Your task to perform on an android device: Open calendar and show me the third week of next month Image 0: 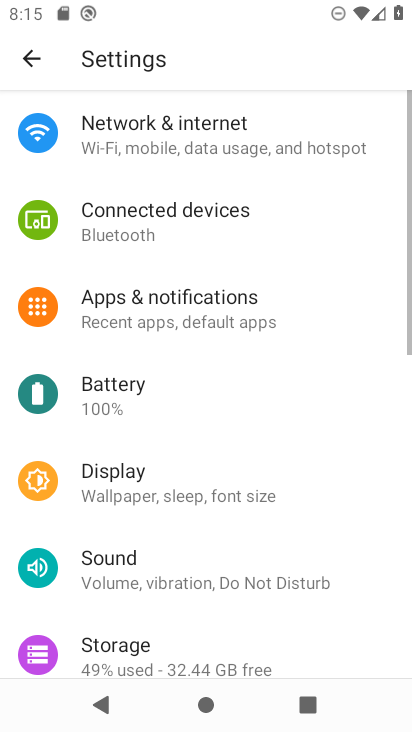
Step 0: press home button
Your task to perform on an android device: Open calendar and show me the third week of next month Image 1: 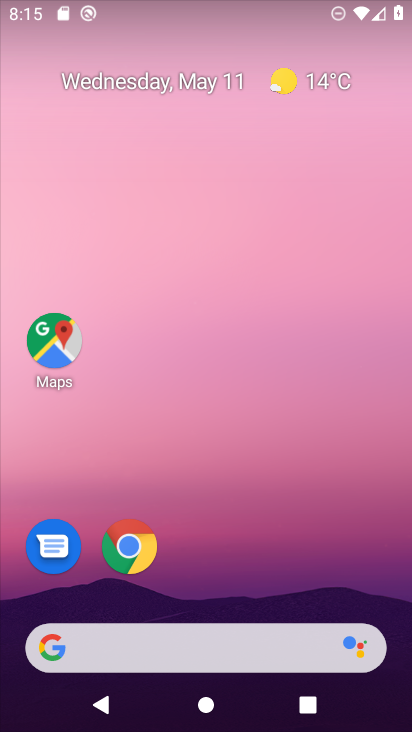
Step 1: drag from (238, 652) to (233, 140)
Your task to perform on an android device: Open calendar and show me the third week of next month Image 2: 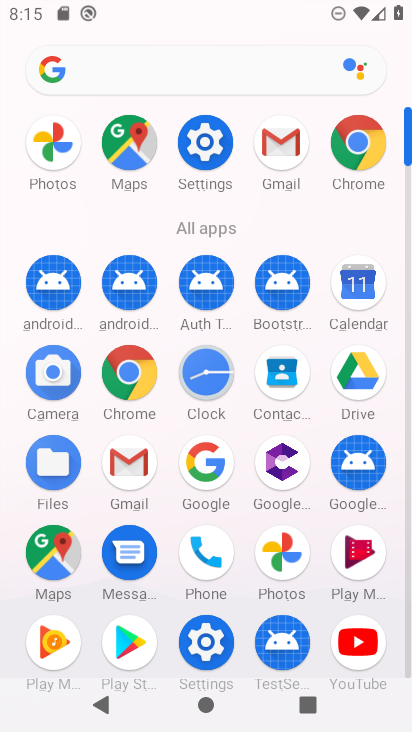
Step 2: click (352, 293)
Your task to perform on an android device: Open calendar and show me the third week of next month Image 3: 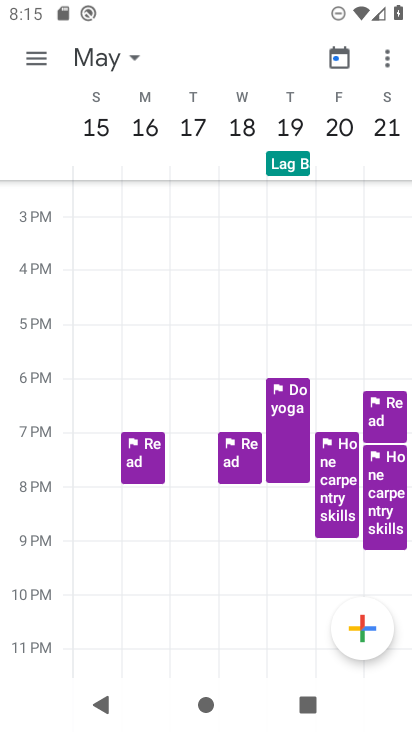
Step 3: click (30, 61)
Your task to perform on an android device: Open calendar and show me the third week of next month Image 4: 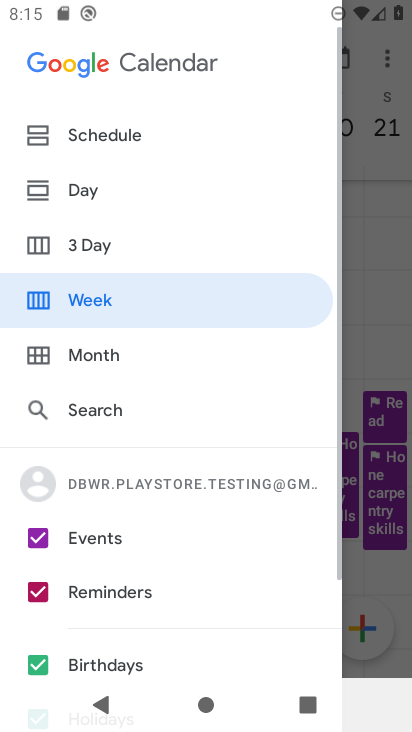
Step 4: click (91, 340)
Your task to perform on an android device: Open calendar and show me the third week of next month Image 5: 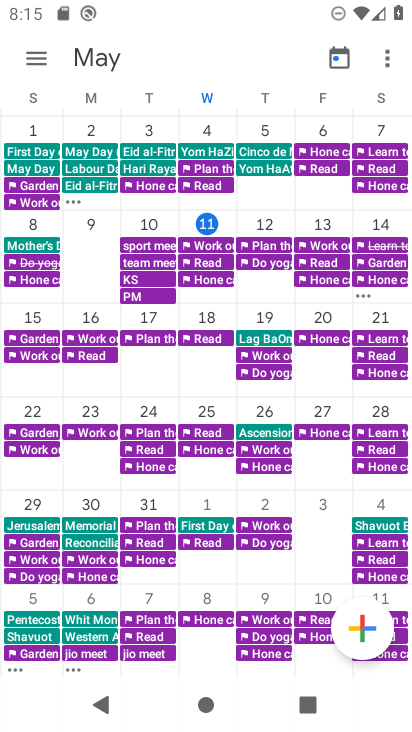
Step 5: task complete